Your task to perform on an android device: Open accessibility settings Image 0: 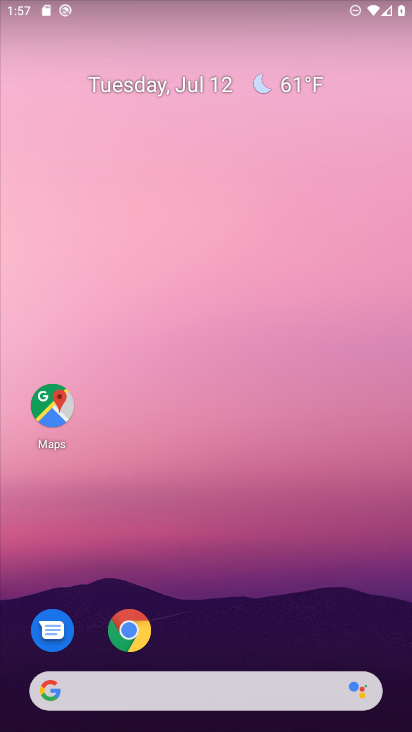
Step 0: drag from (231, 603) to (231, 196)
Your task to perform on an android device: Open accessibility settings Image 1: 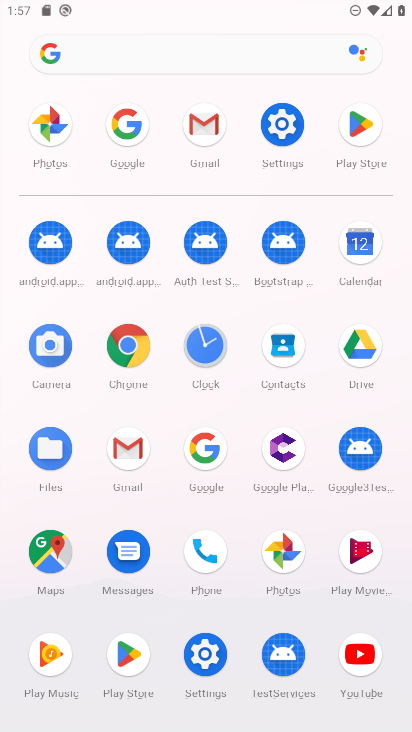
Step 1: click (272, 156)
Your task to perform on an android device: Open accessibility settings Image 2: 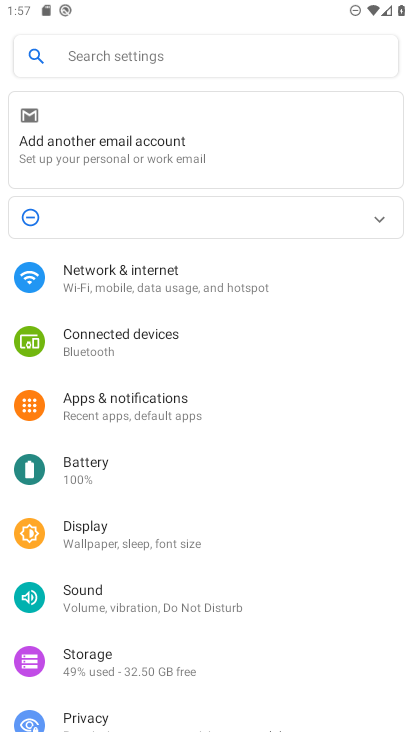
Step 2: drag from (147, 529) to (182, 128)
Your task to perform on an android device: Open accessibility settings Image 3: 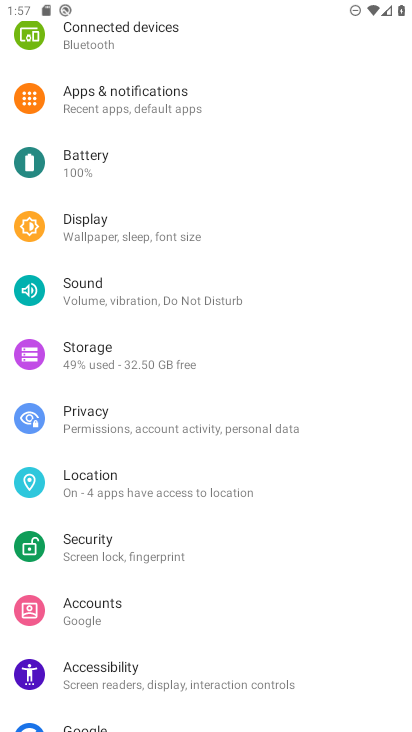
Step 3: click (166, 674)
Your task to perform on an android device: Open accessibility settings Image 4: 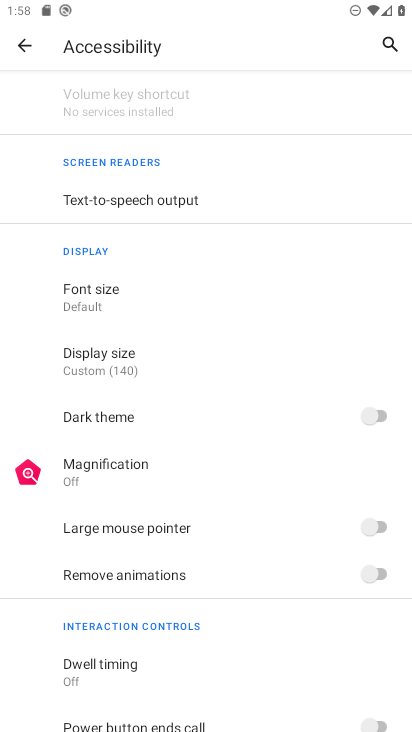
Step 4: task complete